Your task to perform on an android device: set the stopwatch Image 0: 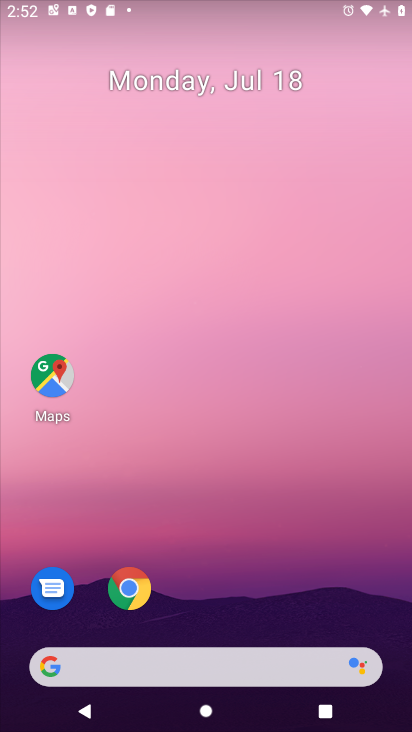
Step 0: drag from (188, 633) to (245, 192)
Your task to perform on an android device: set the stopwatch Image 1: 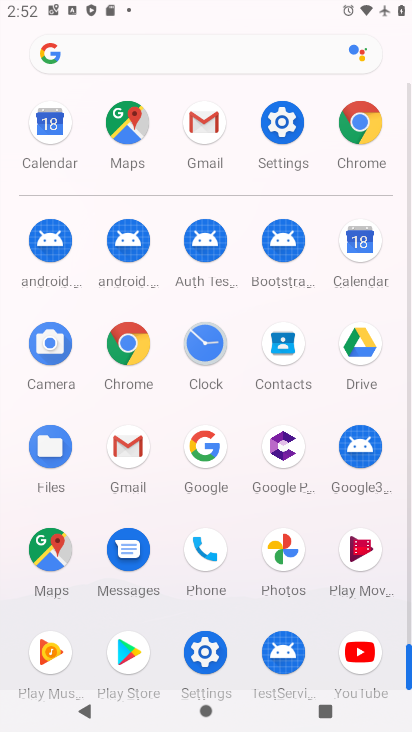
Step 1: click (212, 352)
Your task to perform on an android device: set the stopwatch Image 2: 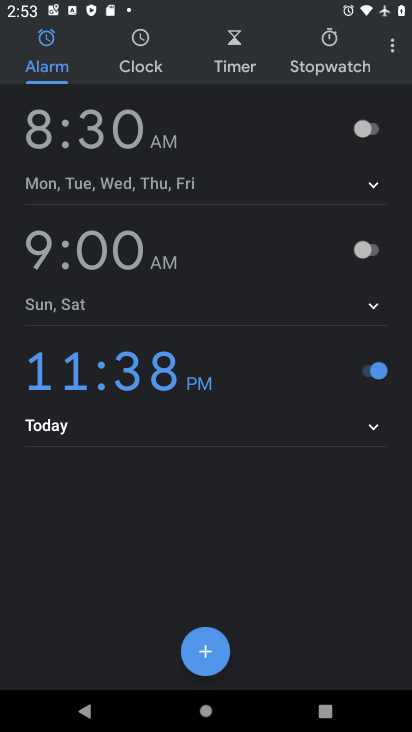
Step 2: click (315, 66)
Your task to perform on an android device: set the stopwatch Image 3: 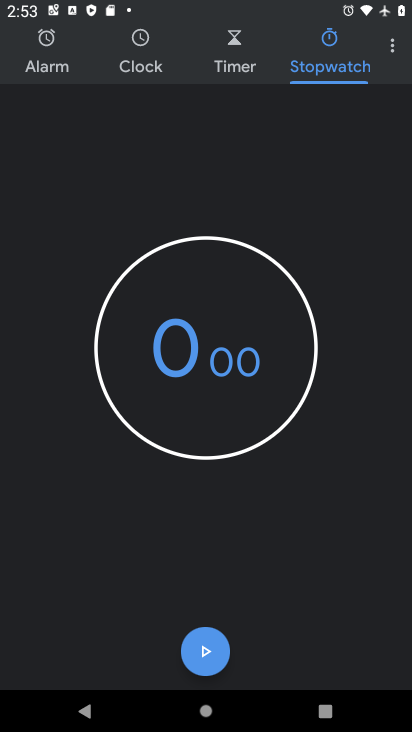
Step 3: click (211, 658)
Your task to perform on an android device: set the stopwatch Image 4: 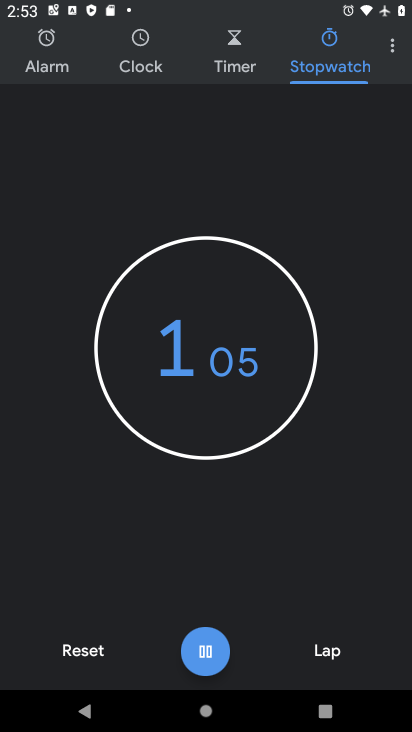
Step 4: task complete